Your task to perform on an android device: Open Amazon Image 0: 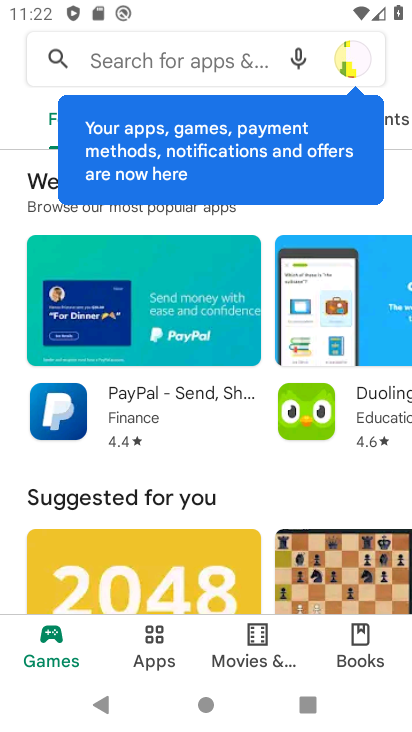
Step 0: press home button
Your task to perform on an android device: Open Amazon Image 1: 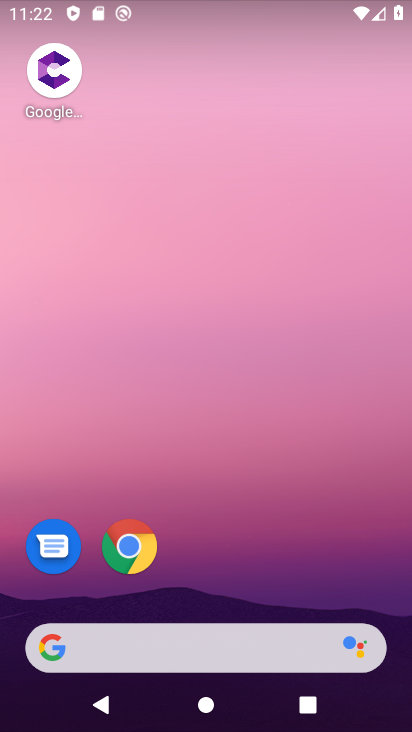
Step 1: click (134, 552)
Your task to perform on an android device: Open Amazon Image 2: 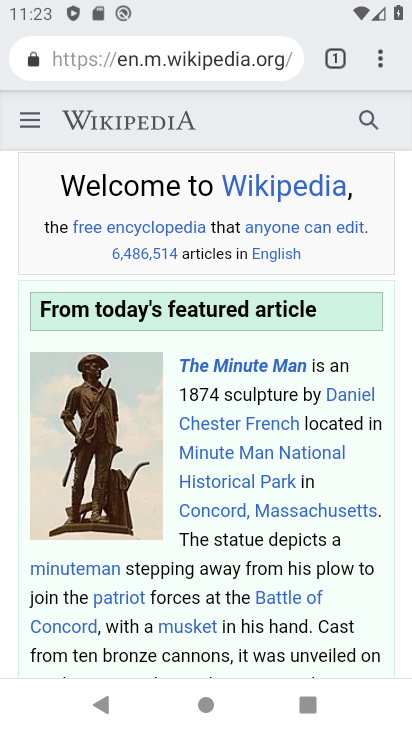
Step 2: click (329, 66)
Your task to perform on an android device: Open Amazon Image 3: 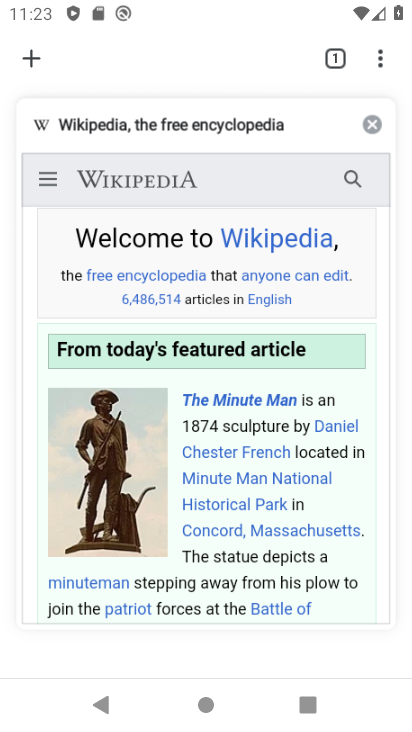
Step 3: click (36, 66)
Your task to perform on an android device: Open Amazon Image 4: 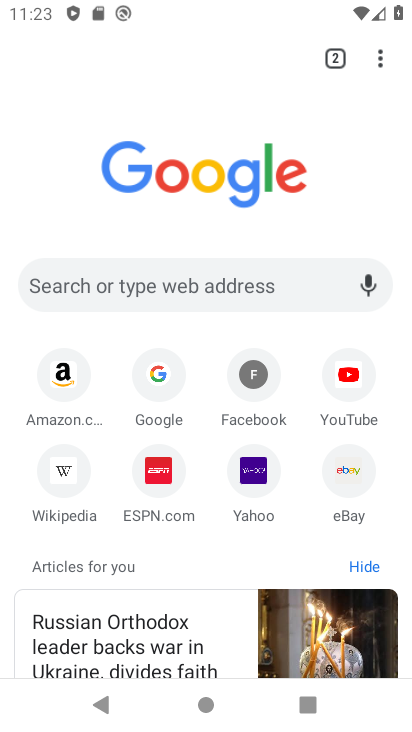
Step 4: click (69, 385)
Your task to perform on an android device: Open Amazon Image 5: 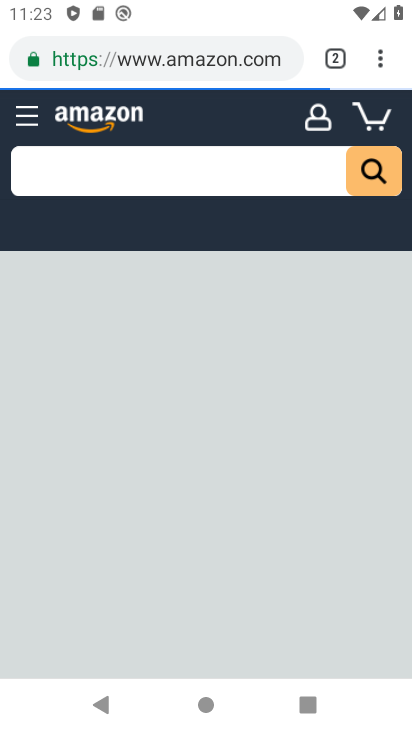
Step 5: task complete